Your task to perform on an android device: read, delete, or share a saved page in the chrome app Image 0: 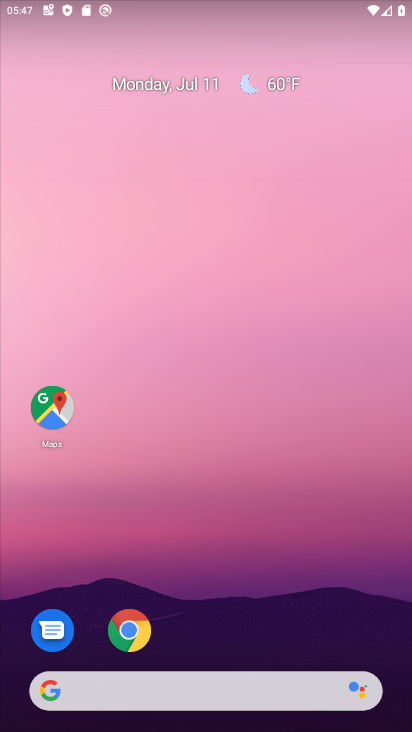
Step 0: click (127, 631)
Your task to perform on an android device: read, delete, or share a saved page in the chrome app Image 1: 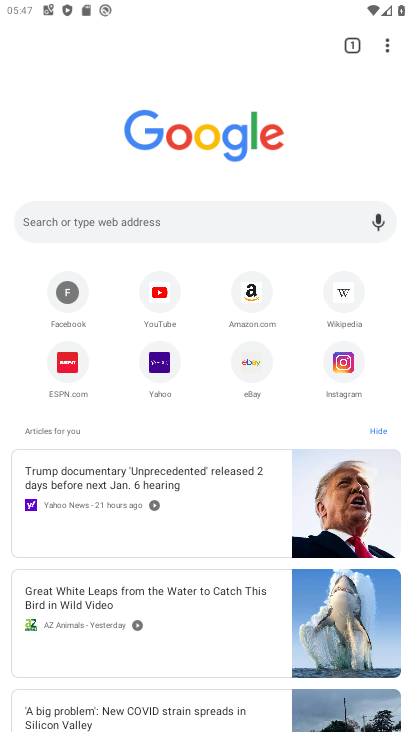
Step 1: task complete